Your task to perform on an android device: open chrome privacy settings Image 0: 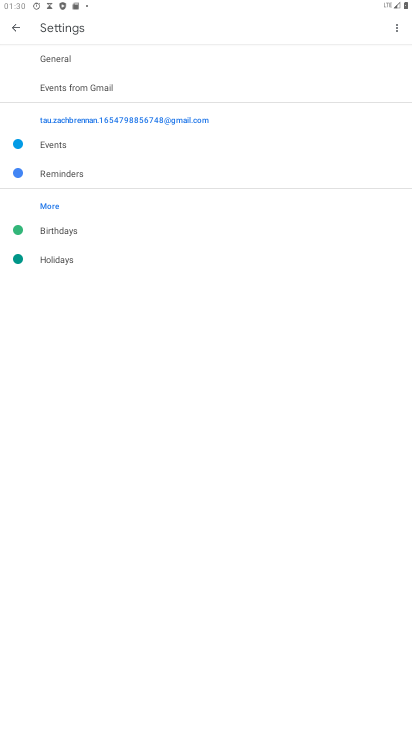
Step 0: press home button
Your task to perform on an android device: open chrome privacy settings Image 1: 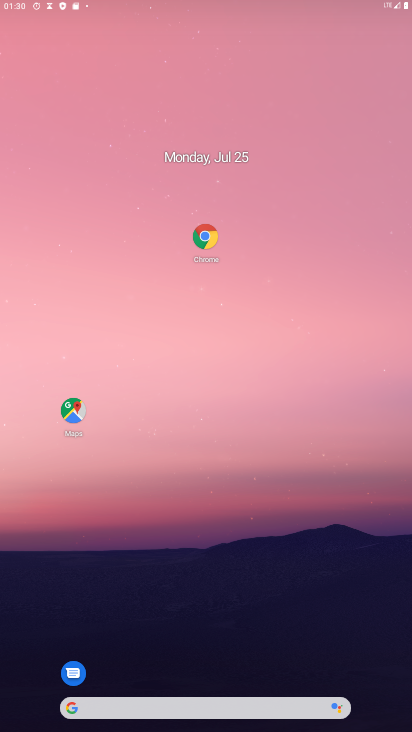
Step 1: drag from (268, 688) to (301, 1)
Your task to perform on an android device: open chrome privacy settings Image 2: 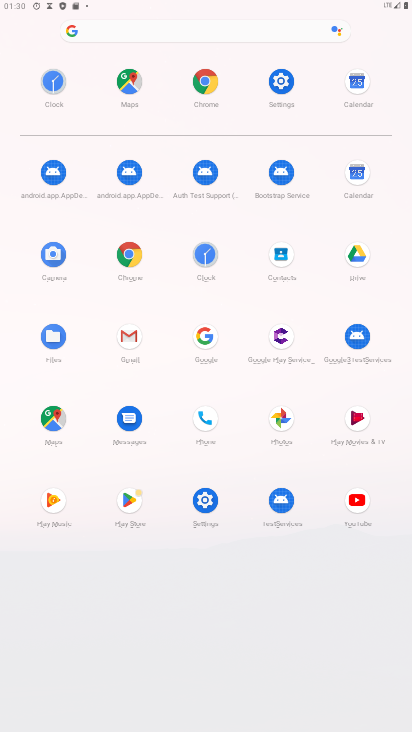
Step 2: click (133, 255)
Your task to perform on an android device: open chrome privacy settings Image 3: 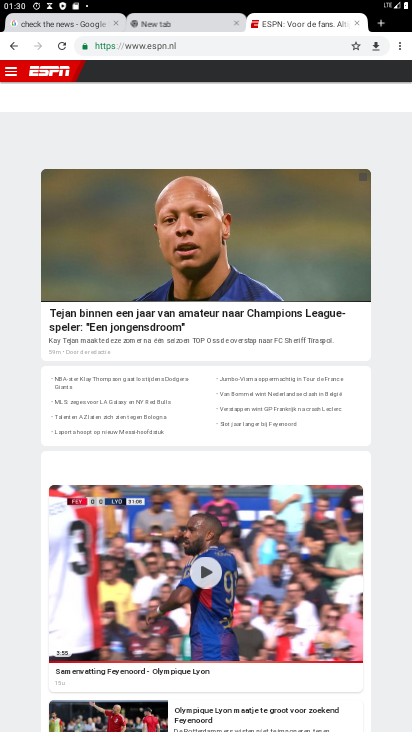
Step 3: drag from (394, 76) to (343, 262)
Your task to perform on an android device: open chrome privacy settings Image 4: 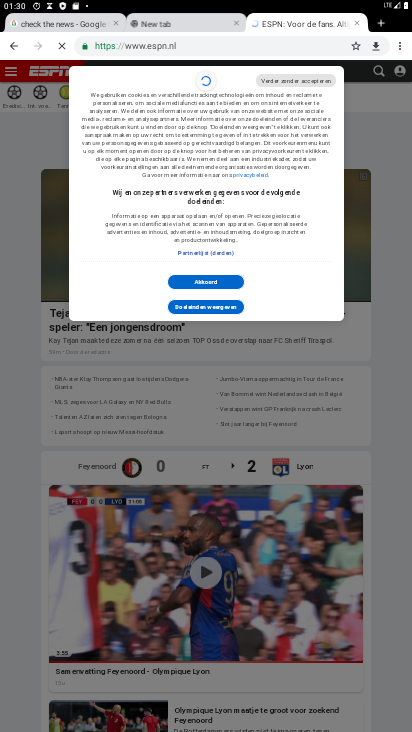
Step 4: click (399, 44)
Your task to perform on an android device: open chrome privacy settings Image 5: 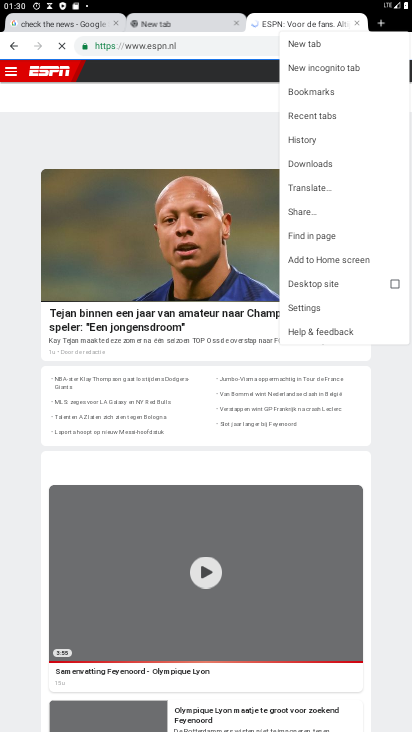
Step 5: click (325, 306)
Your task to perform on an android device: open chrome privacy settings Image 6: 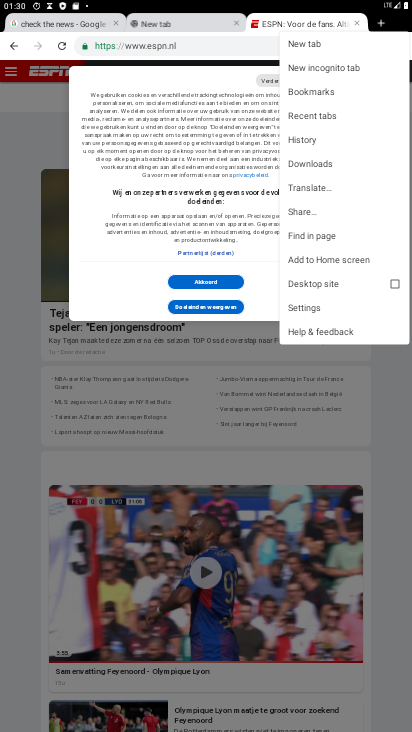
Step 6: click (307, 307)
Your task to perform on an android device: open chrome privacy settings Image 7: 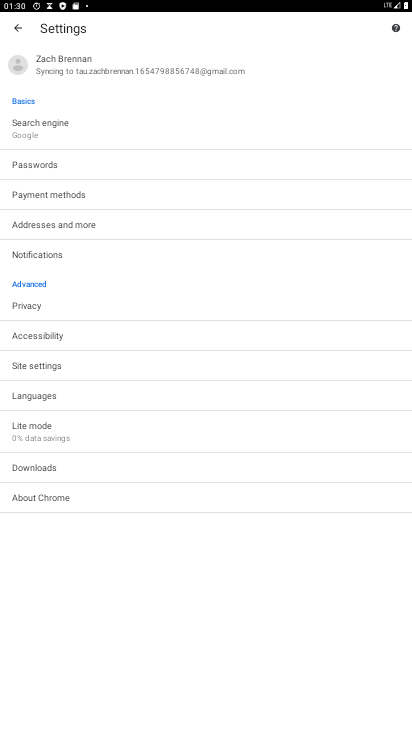
Step 7: click (74, 306)
Your task to perform on an android device: open chrome privacy settings Image 8: 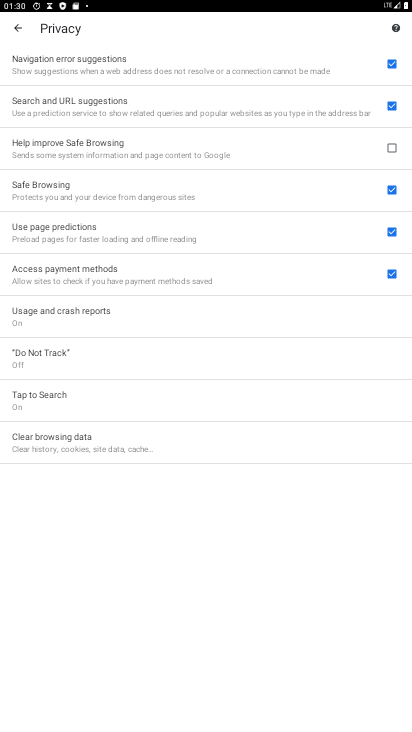
Step 8: task complete